Your task to perform on an android device: turn on priority inbox in the gmail app Image 0: 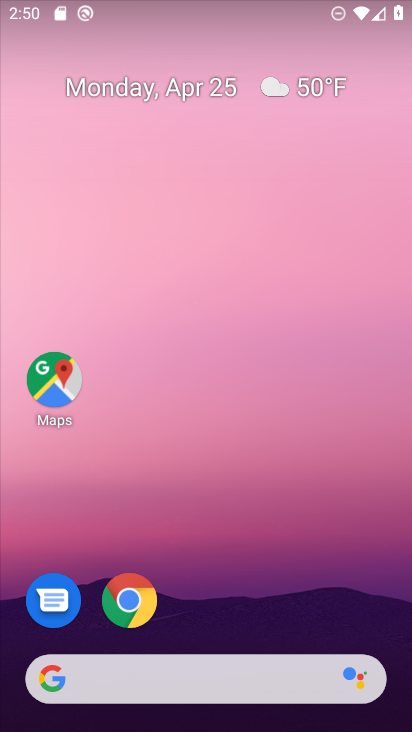
Step 0: drag from (196, 640) to (154, 131)
Your task to perform on an android device: turn on priority inbox in the gmail app Image 1: 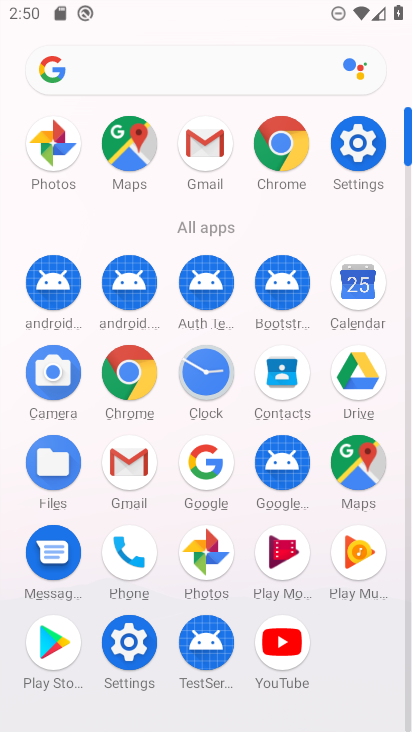
Step 1: click (130, 469)
Your task to perform on an android device: turn on priority inbox in the gmail app Image 2: 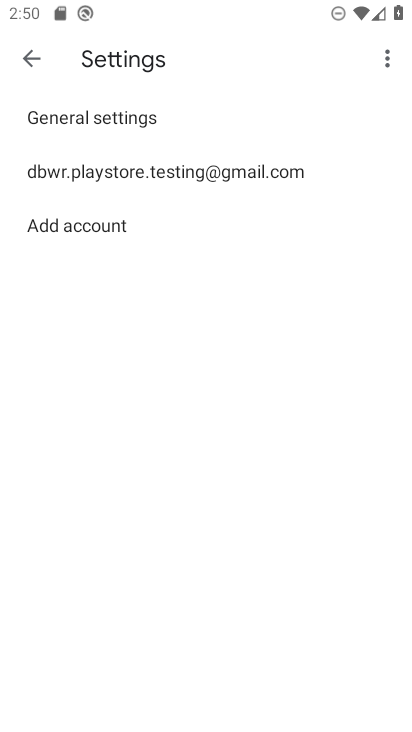
Step 2: click (80, 172)
Your task to perform on an android device: turn on priority inbox in the gmail app Image 3: 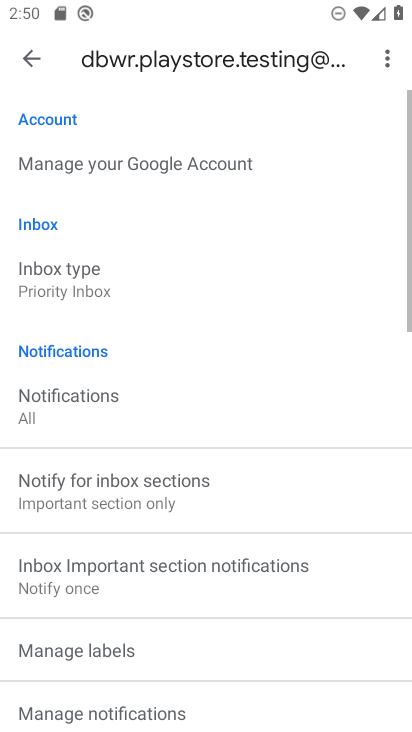
Step 3: drag from (185, 601) to (162, 448)
Your task to perform on an android device: turn on priority inbox in the gmail app Image 4: 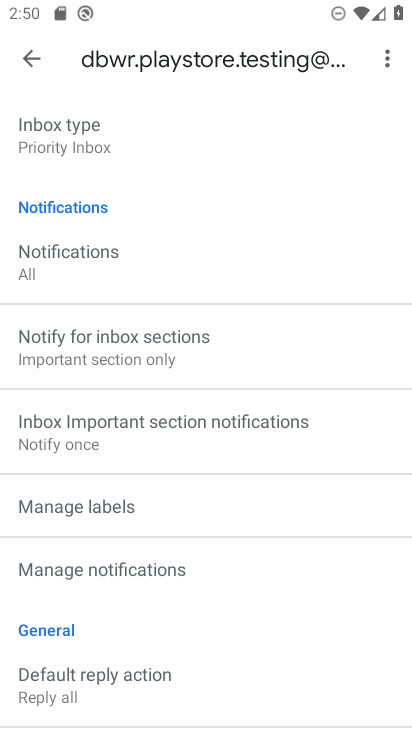
Step 4: click (104, 145)
Your task to perform on an android device: turn on priority inbox in the gmail app Image 5: 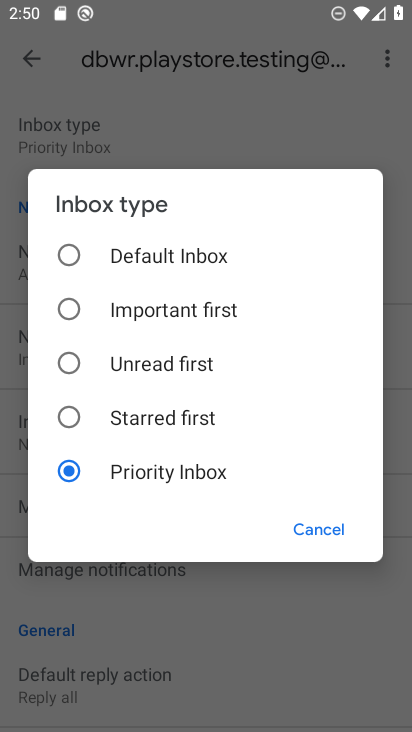
Step 5: click (168, 453)
Your task to perform on an android device: turn on priority inbox in the gmail app Image 6: 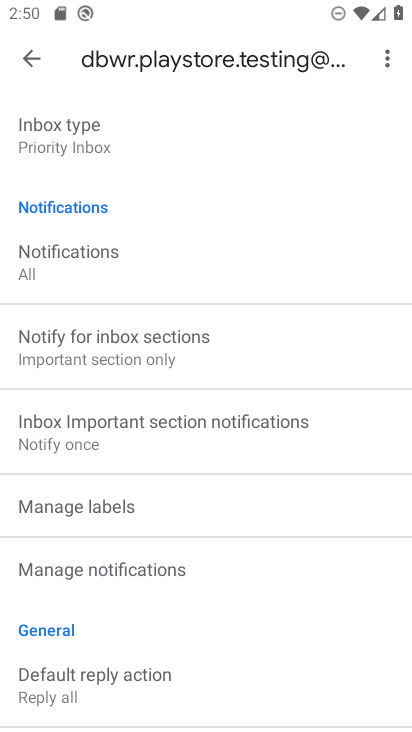
Step 6: task complete